Your task to perform on an android device: make emails show in primary in the gmail app Image 0: 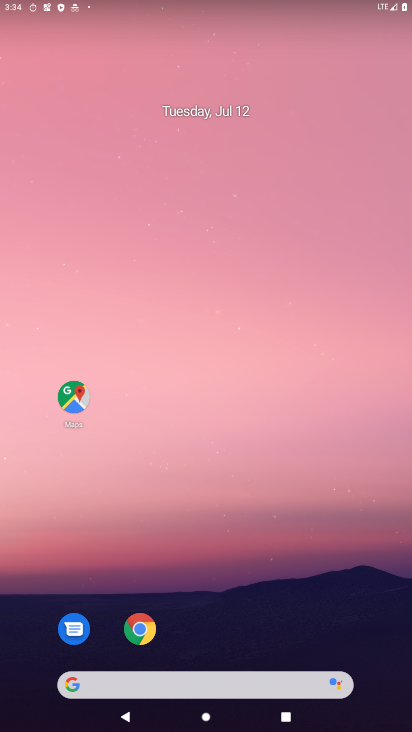
Step 0: drag from (262, 638) to (393, 95)
Your task to perform on an android device: make emails show in primary in the gmail app Image 1: 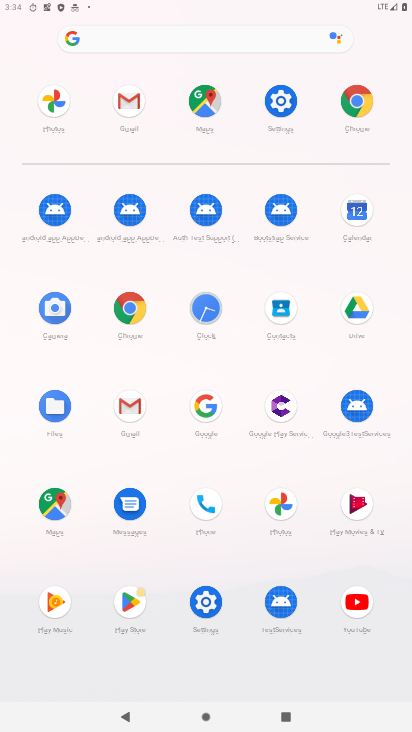
Step 1: click (126, 405)
Your task to perform on an android device: make emails show in primary in the gmail app Image 2: 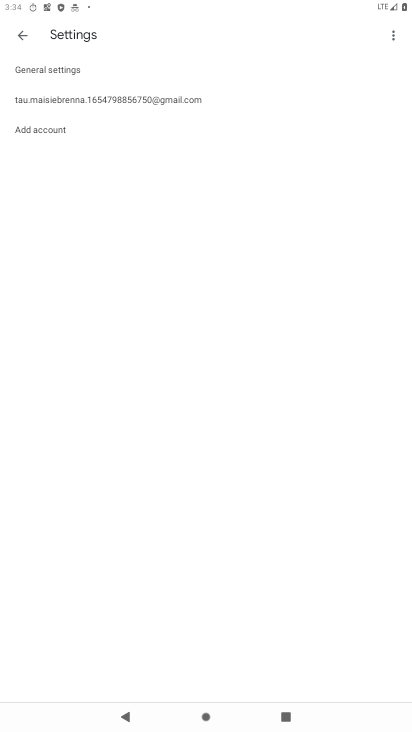
Step 2: click (26, 36)
Your task to perform on an android device: make emails show in primary in the gmail app Image 3: 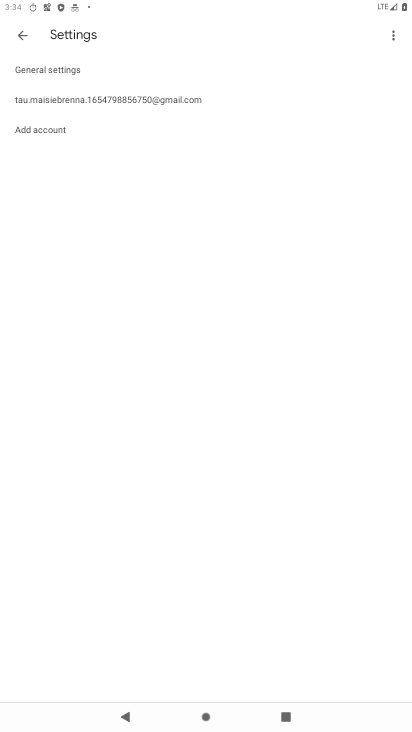
Step 3: click (19, 33)
Your task to perform on an android device: make emails show in primary in the gmail app Image 4: 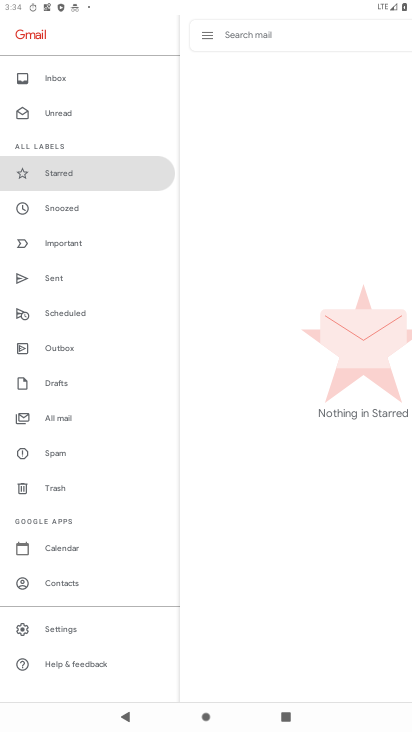
Step 4: task complete